Your task to perform on an android device: What's the weather? Image 0: 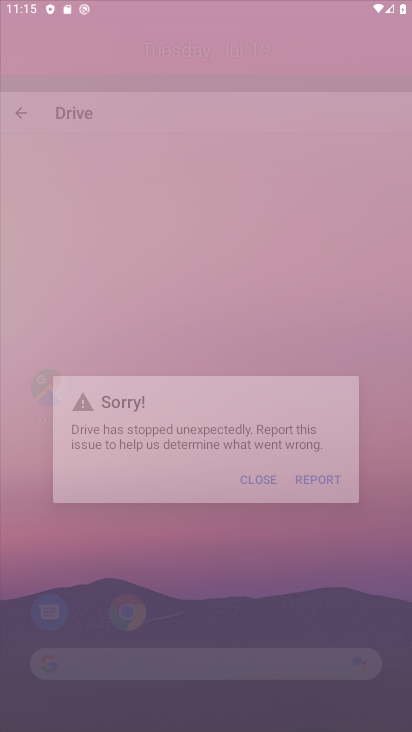
Step 0: click (311, 261)
Your task to perform on an android device: What's the weather? Image 1: 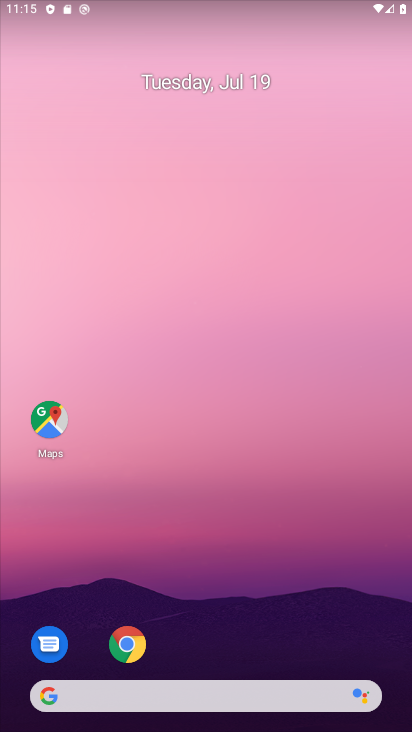
Step 1: drag from (180, 668) to (194, 18)
Your task to perform on an android device: What's the weather? Image 2: 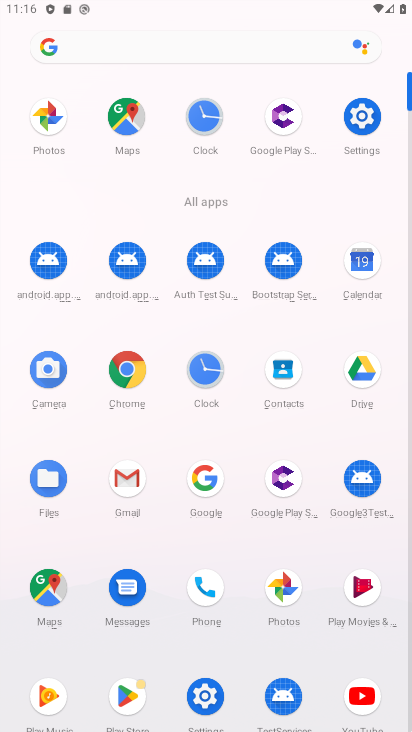
Step 2: click (153, 22)
Your task to perform on an android device: What's the weather? Image 3: 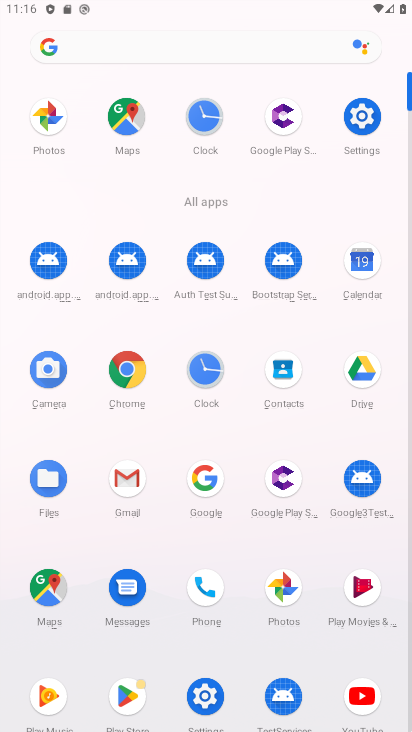
Step 3: click (134, 38)
Your task to perform on an android device: What's the weather? Image 4: 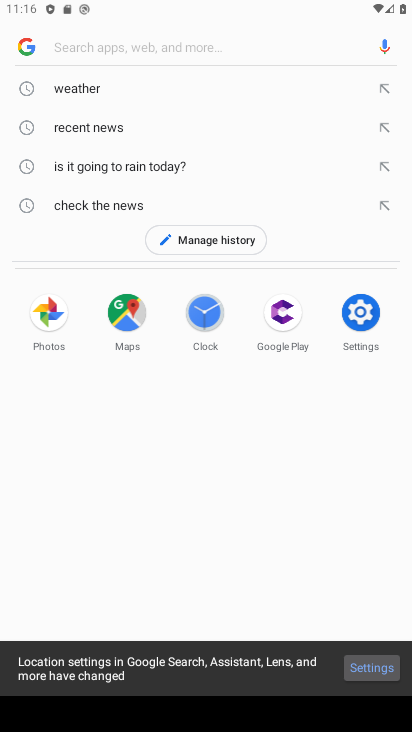
Step 4: click (100, 96)
Your task to perform on an android device: What's the weather? Image 5: 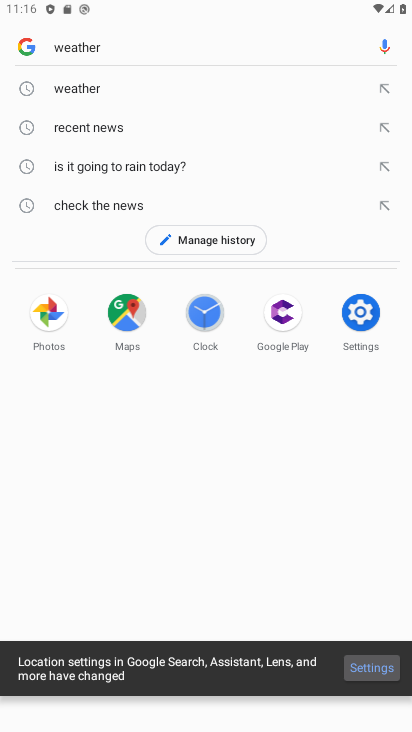
Step 5: task complete